Your task to perform on an android device: toggle airplane mode Image 0: 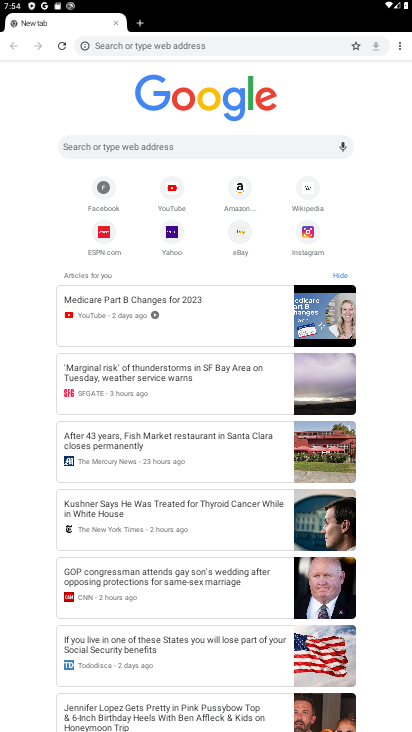
Step 0: click (400, 48)
Your task to perform on an android device: toggle airplane mode Image 1: 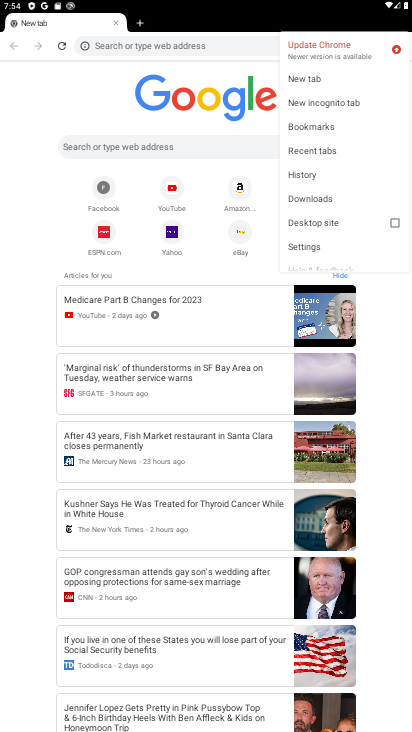
Step 1: press home button
Your task to perform on an android device: toggle airplane mode Image 2: 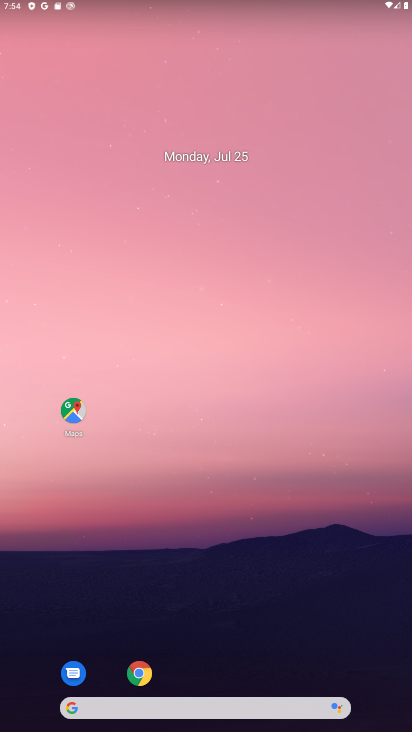
Step 2: drag from (227, 682) to (199, 143)
Your task to perform on an android device: toggle airplane mode Image 3: 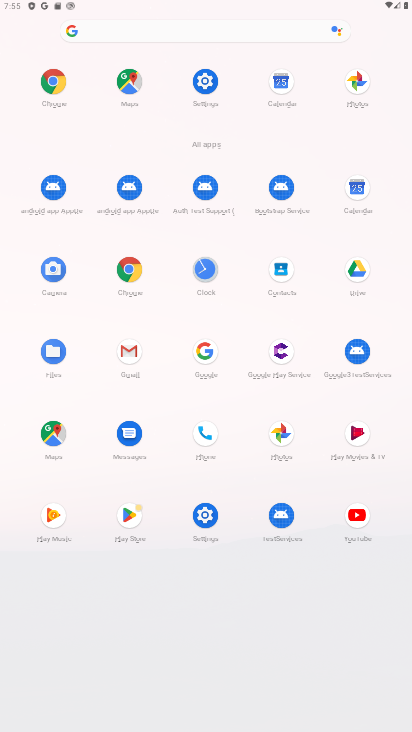
Step 3: click (205, 86)
Your task to perform on an android device: toggle airplane mode Image 4: 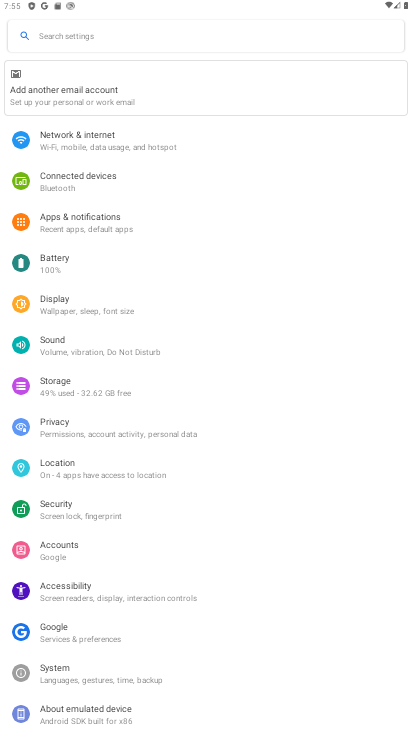
Step 4: task complete